Your task to perform on an android device: delete location history Image 0: 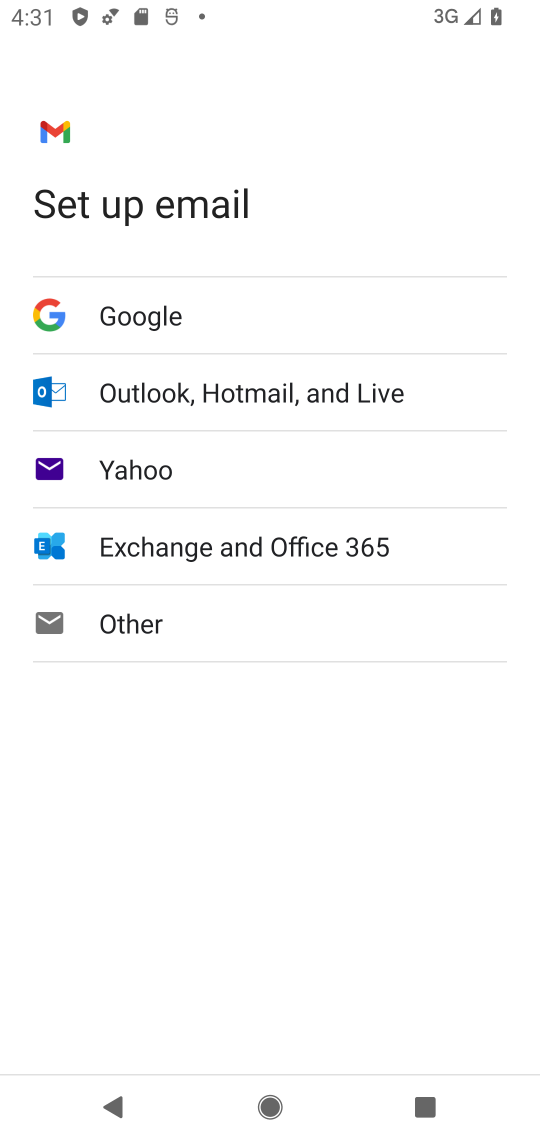
Step 0: press home button
Your task to perform on an android device: delete location history Image 1: 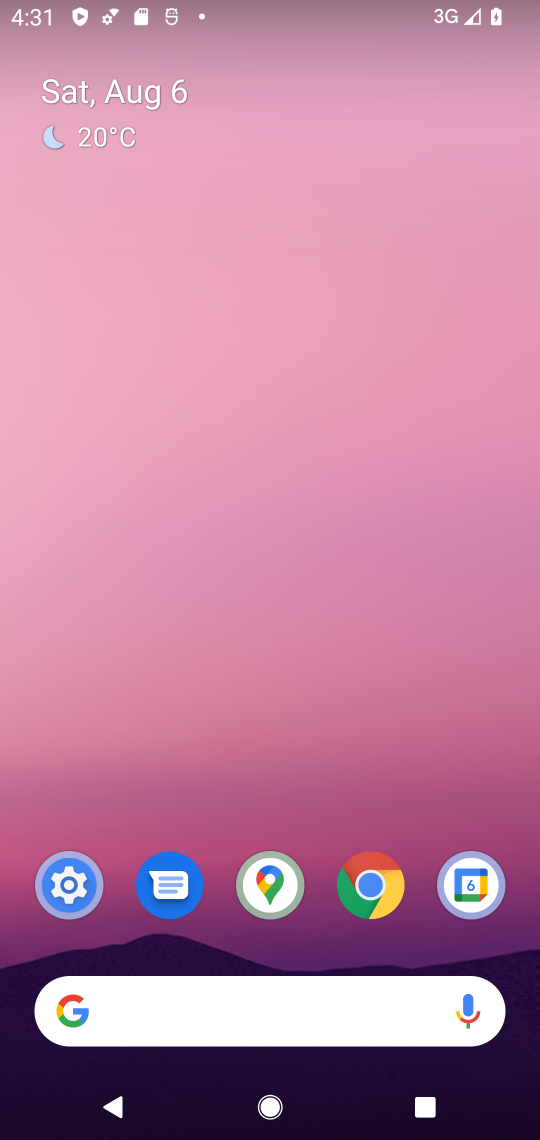
Step 1: drag from (415, 879) to (343, 199)
Your task to perform on an android device: delete location history Image 2: 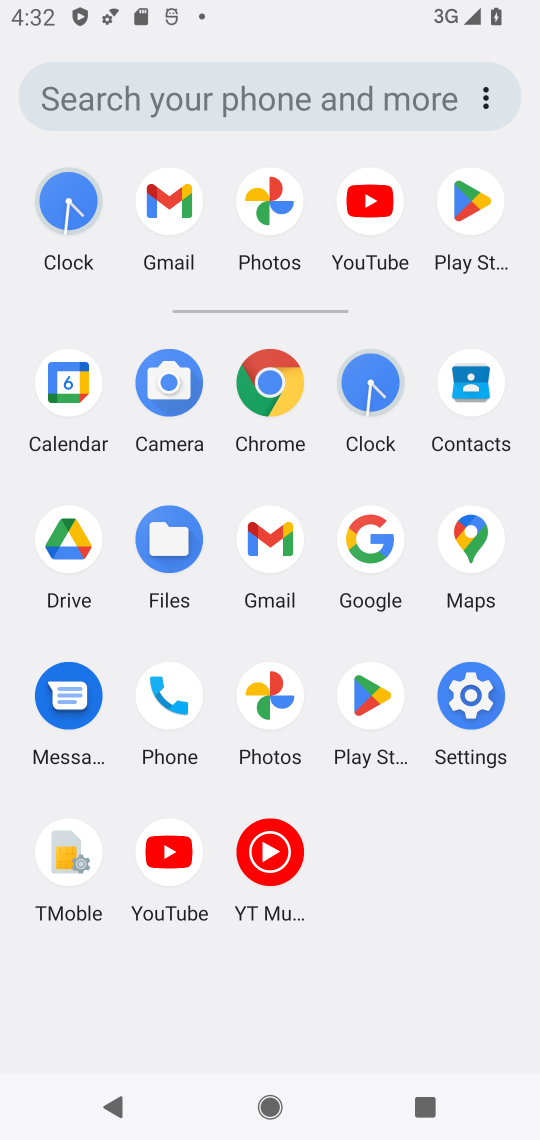
Step 2: click (492, 719)
Your task to perform on an android device: delete location history Image 3: 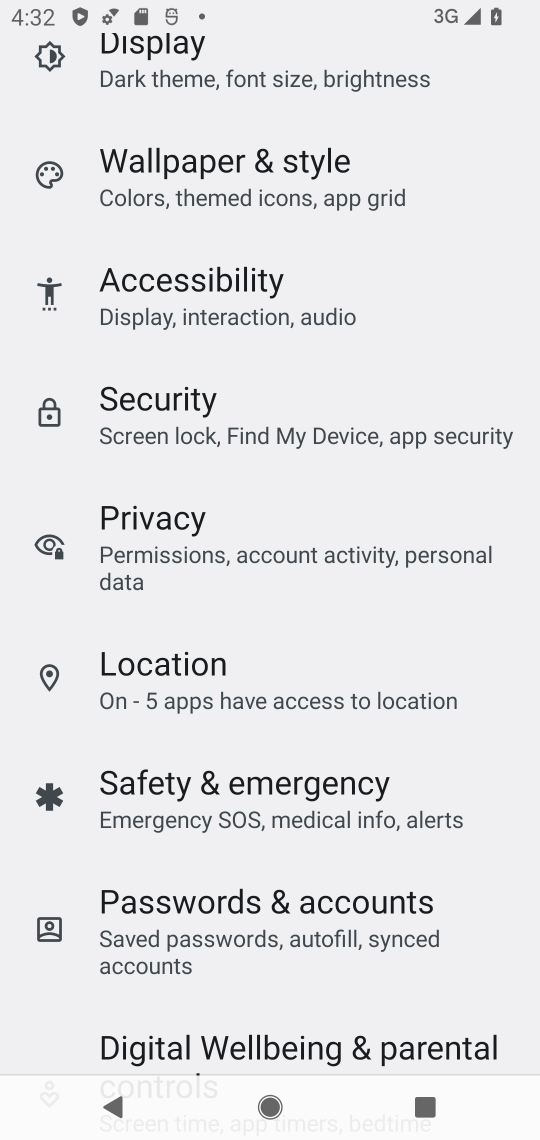
Step 3: click (234, 671)
Your task to perform on an android device: delete location history Image 4: 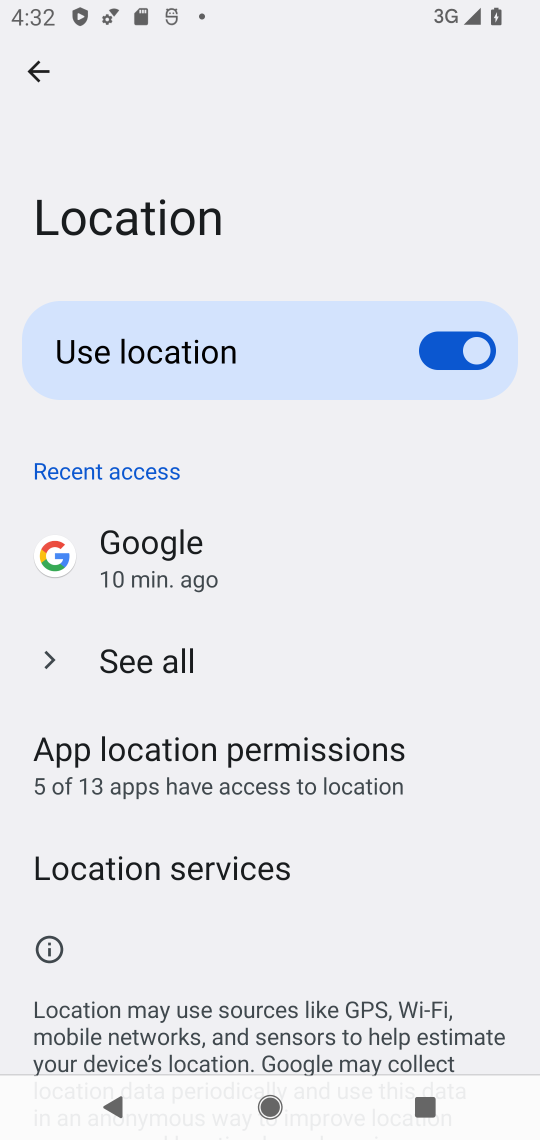
Step 4: task complete